Your task to perform on an android device: Open sound settings Image 0: 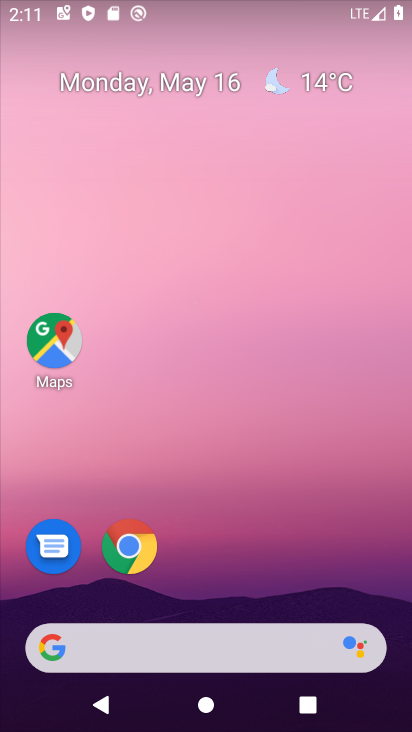
Step 0: drag from (222, 669) to (250, 217)
Your task to perform on an android device: Open sound settings Image 1: 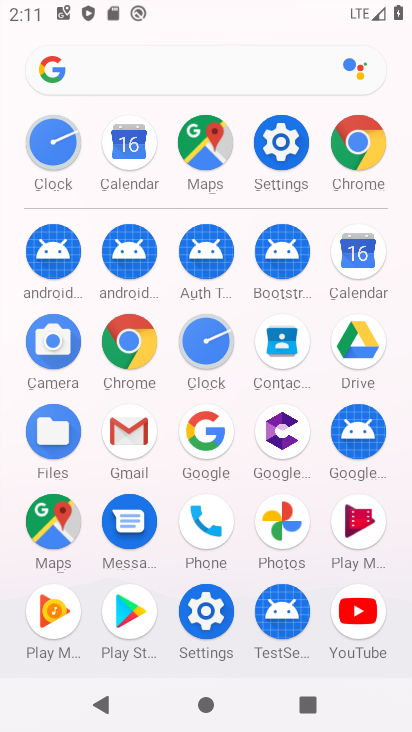
Step 1: click (287, 137)
Your task to perform on an android device: Open sound settings Image 2: 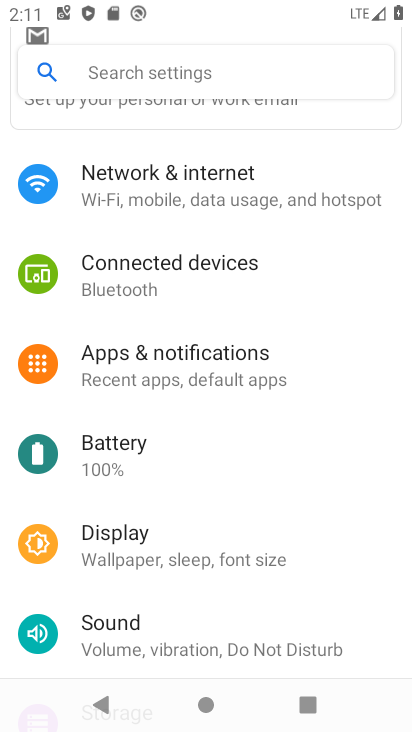
Step 2: click (179, 71)
Your task to perform on an android device: Open sound settings Image 3: 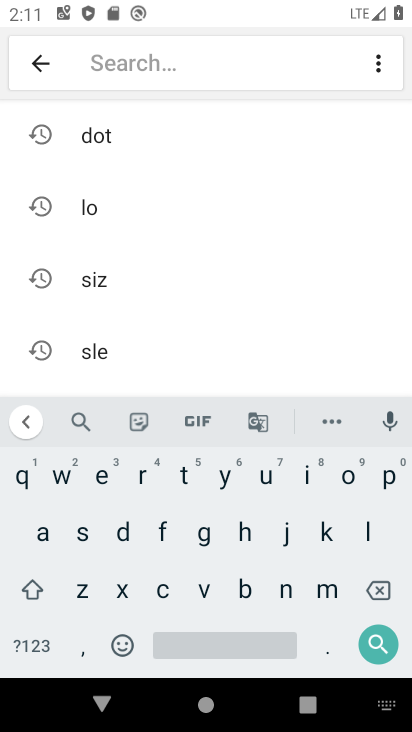
Step 3: click (84, 537)
Your task to perform on an android device: Open sound settings Image 4: 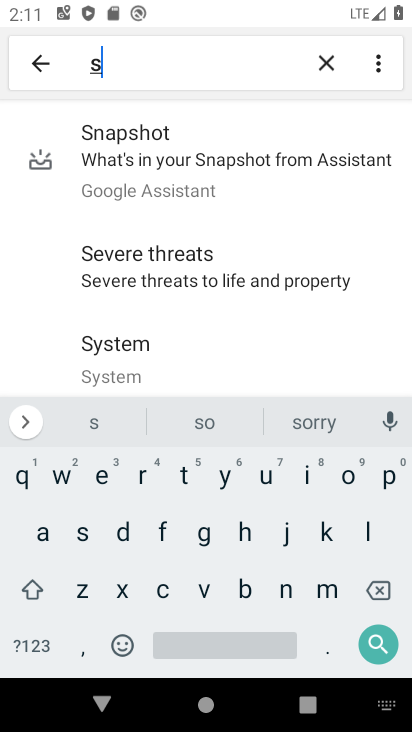
Step 4: click (354, 479)
Your task to perform on an android device: Open sound settings Image 5: 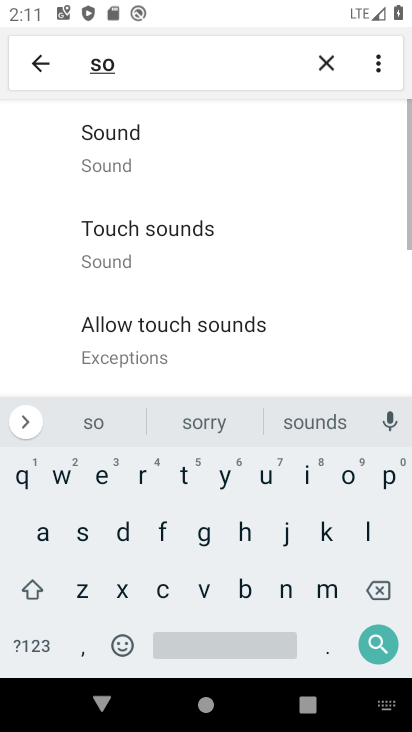
Step 5: click (266, 477)
Your task to perform on an android device: Open sound settings Image 6: 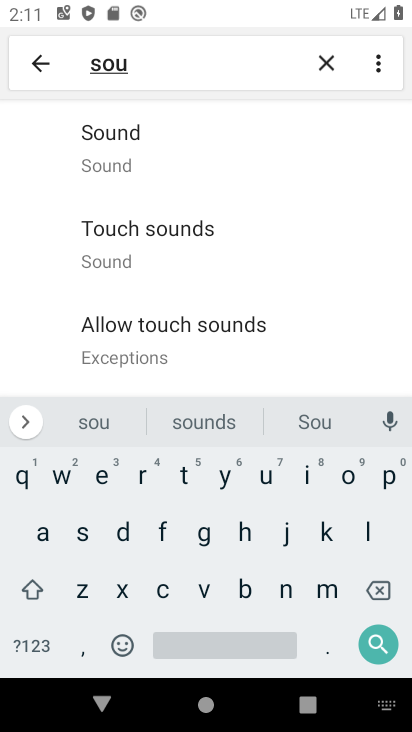
Step 6: click (126, 163)
Your task to perform on an android device: Open sound settings Image 7: 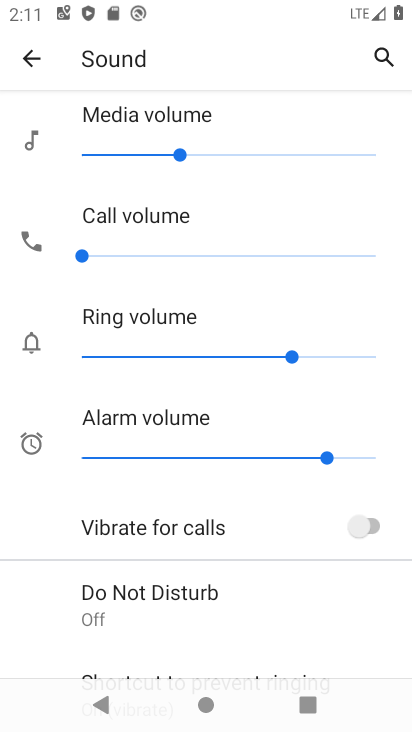
Step 7: task complete